Your task to perform on an android device: Open calendar and show me the second week of next month Image 0: 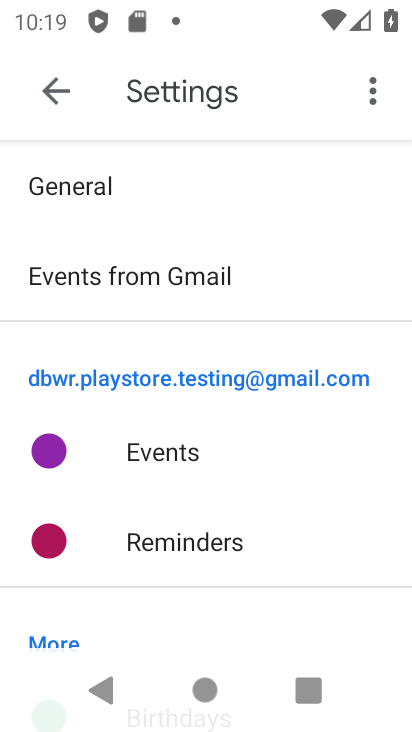
Step 0: press home button
Your task to perform on an android device: Open calendar and show me the second week of next month Image 1: 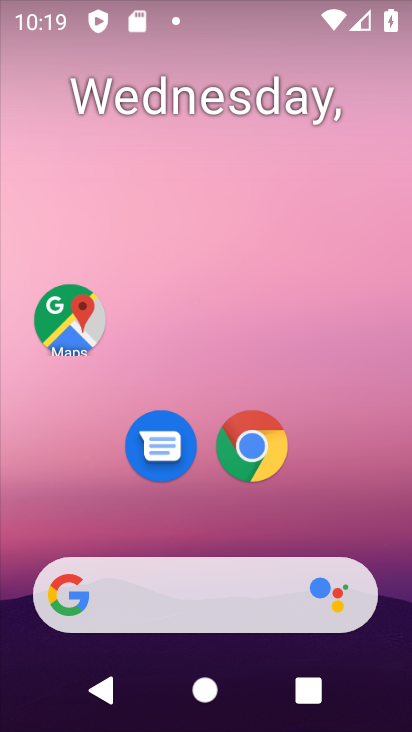
Step 1: drag from (53, 546) to (151, 102)
Your task to perform on an android device: Open calendar and show me the second week of next month Image 2: 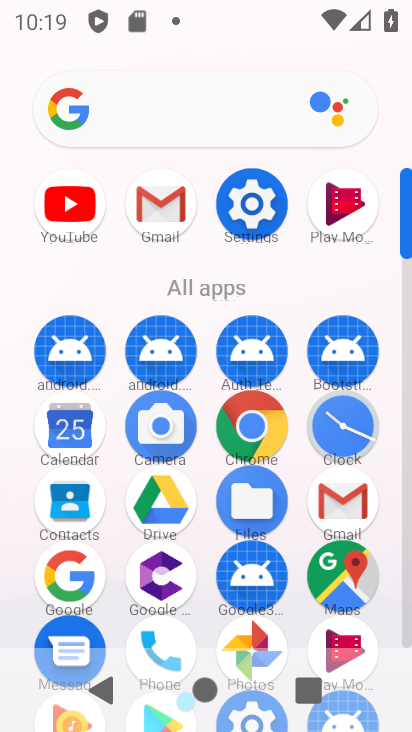
Step 2: click (79, 444)
Your task to perform on an android device: Open calendar and show me the second week of next month Image 3: 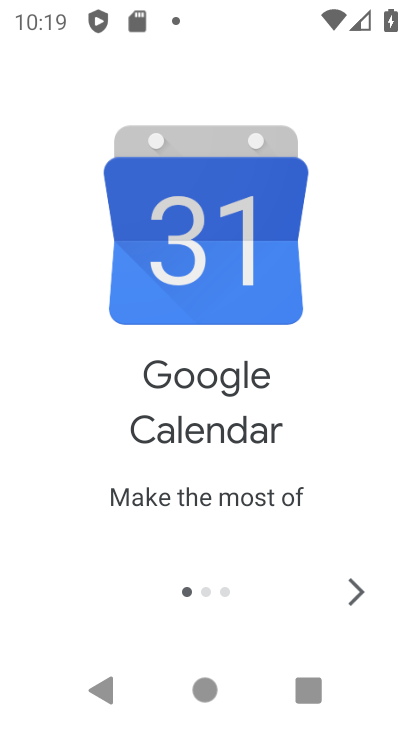
Step 3: click (342, 582)
Your task to perform on an android device: Open calendar and show me the second week of next month Image 4: 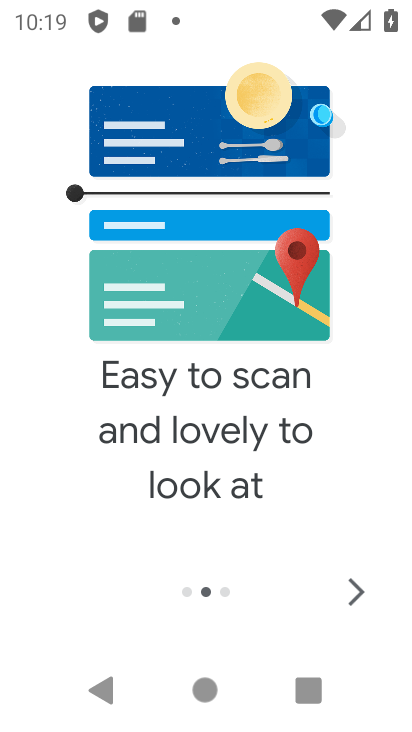
Step 4: click (342, 582)
Your task to perform on an android device: Open calendar and show me the second week of next month Image 5: 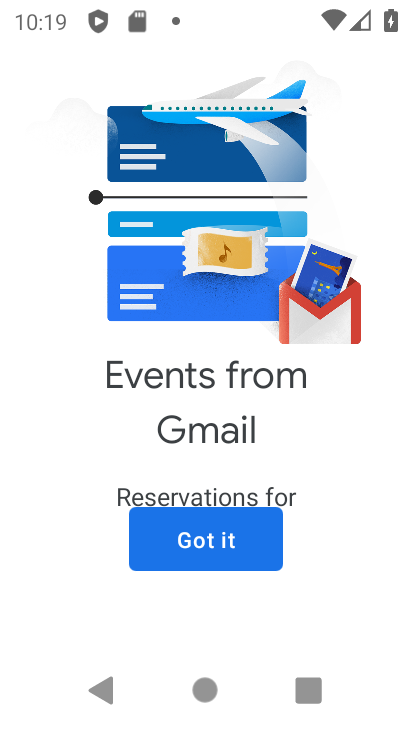
Step 5: click (255, 558)
Your task to perform on an android device: Open calendar and show me the second week of next month Image 6: 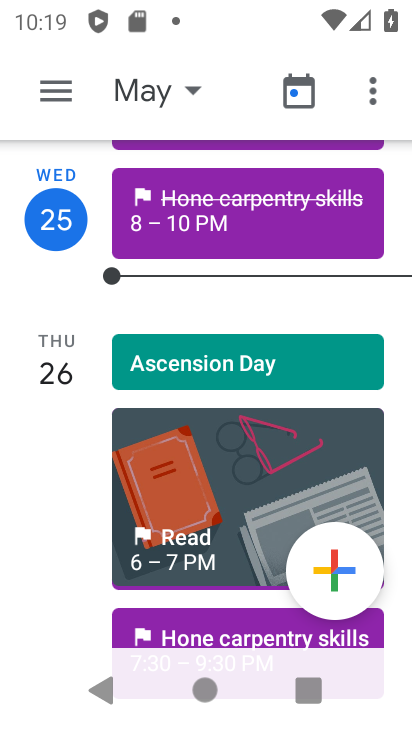
Step 6: click (131, 101)
Your task to perform on an android device: Open calendar and show me the second week of next month Image 7: 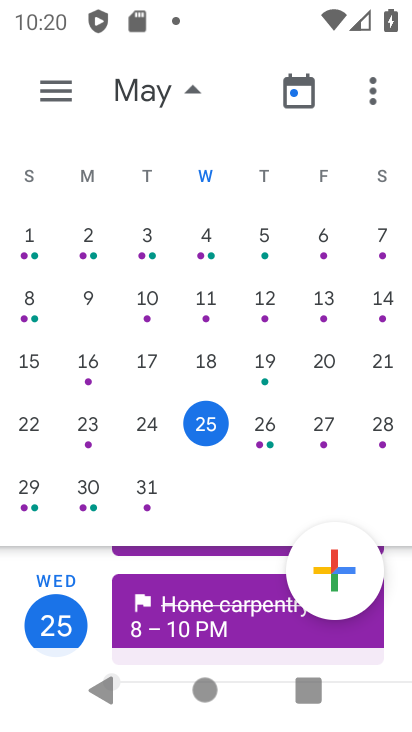
Step 7: drag from (380, 369) to (67, 328)
Your task to perform on an android device: Open calendar and show me the second week of next month Image 8: 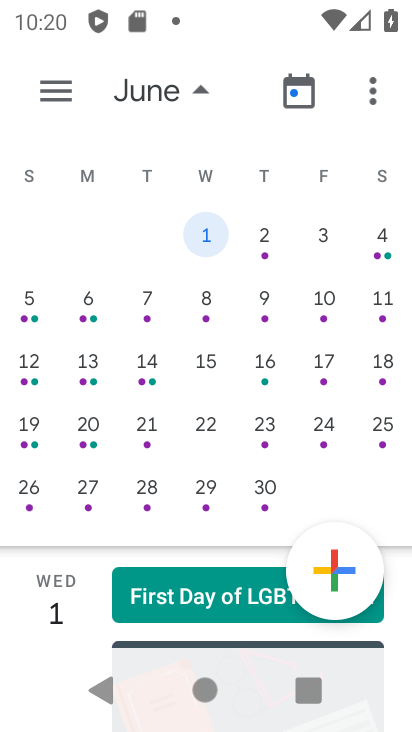
Step 8: click (37, 376)
Your task to perform on an android device: Open calendar and show me the second week of next month Image 9: 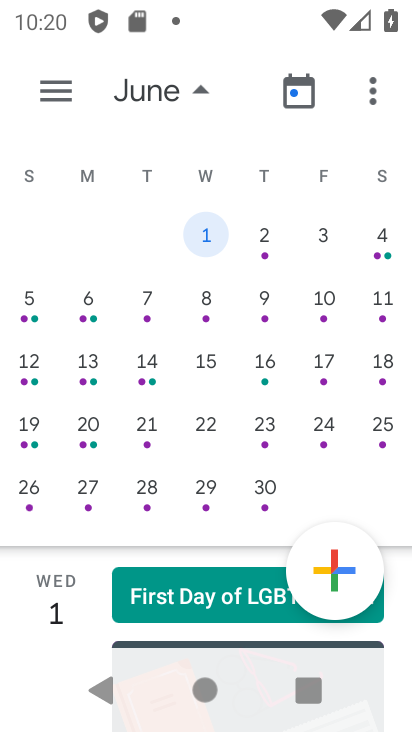
Step 9: click (35, 373)
Your task to perform on an android device: Open calendar and show me the second week of next month Image 10: 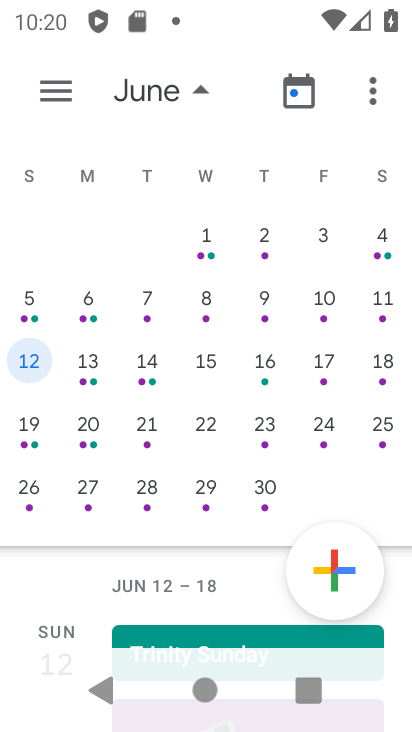
Step 10: click (52, 89)
Your task to perform on an android device: Open calendar and show me the second week of next month Image 11: 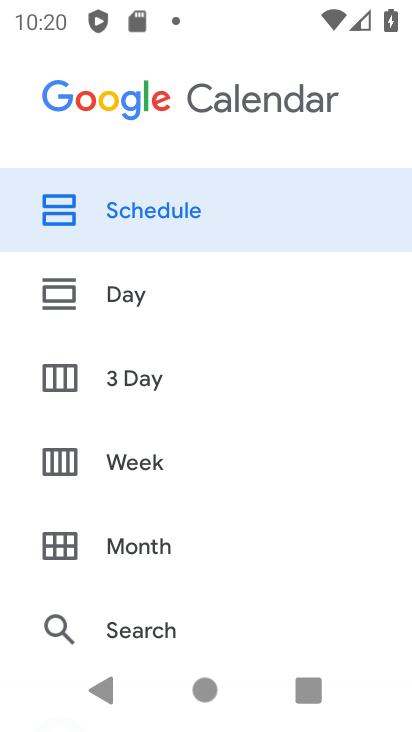
Step 11: click (112, 466)
Your task to perform on an android device: Open calendar and show me the second week of next month Image 12: 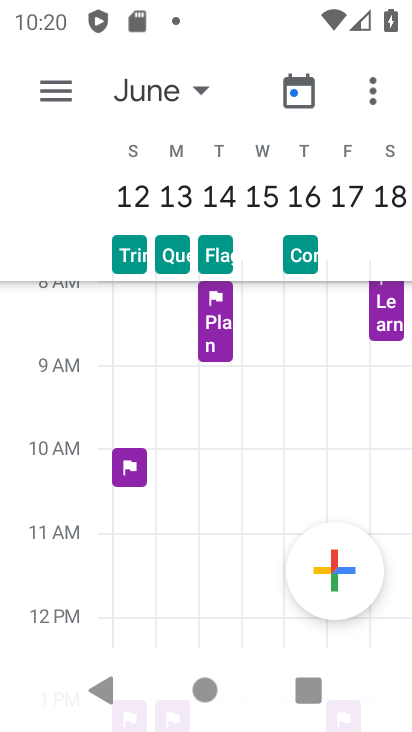
Step 12: task complete